Your task to perform on an android device: refresh tabs in the chrome app Image 0: 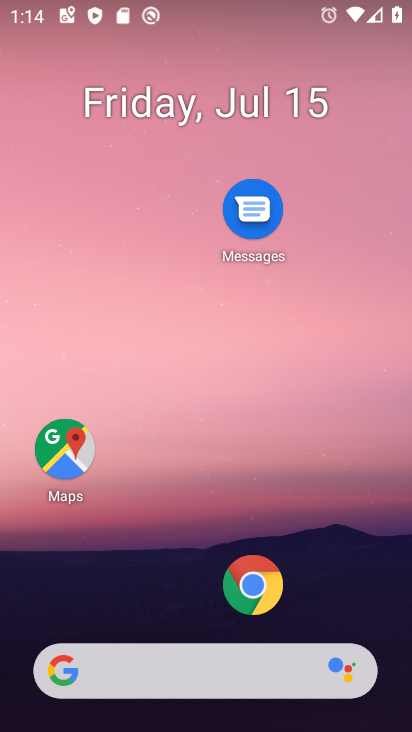
Step 0: press home button
Your task to perform on an android device: refresh tabs in the chrome app Image 1: 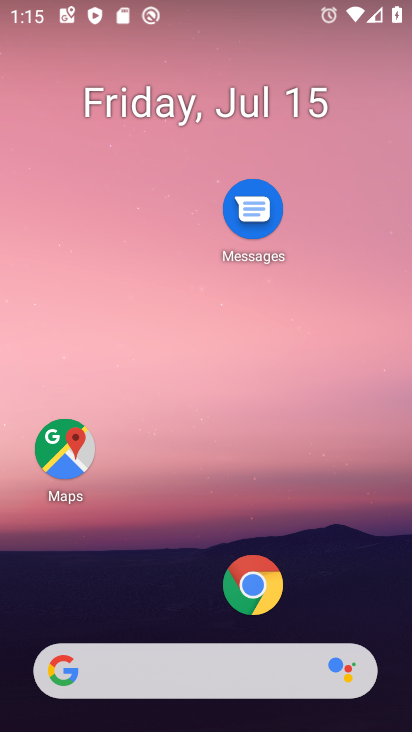
Step 1: click (253, 596)
Your task to perform on an android device: refresh tabs in the chrome app Image 2: 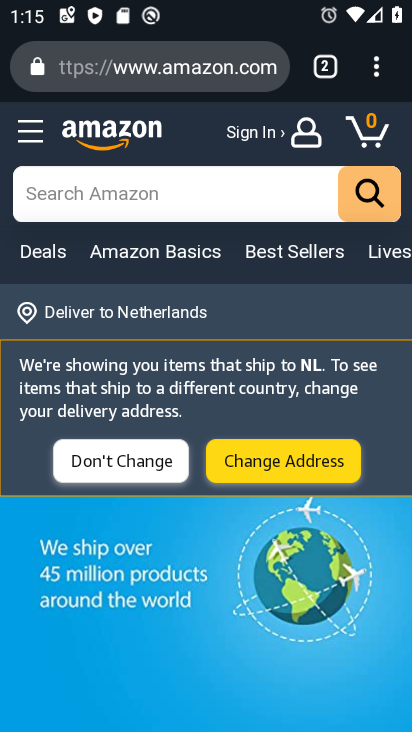
Step 2: click (373, 91)
Your task to perform on an android device: refresh tabs in the chrome app Image 3: 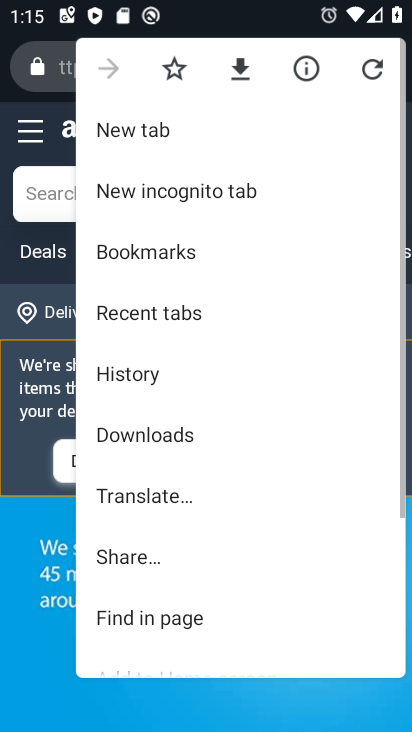
Step 3: click (372, 72)
Your task to perform on an android device: refresh tabs in the chrome app Image 4: 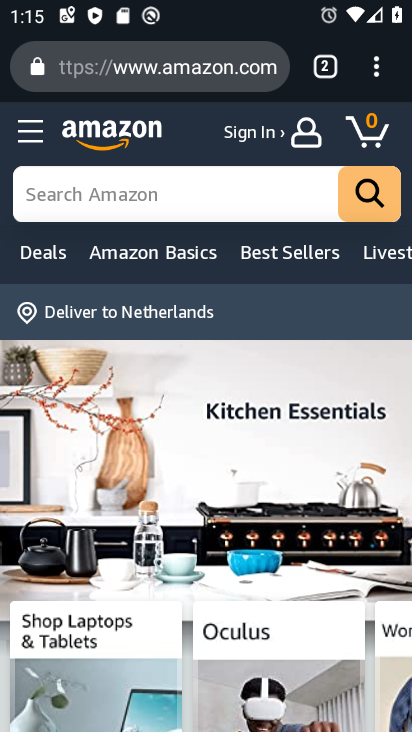
Step 4: task complete